Your task to perform on an android device: toggle improve location accuracy Image 0: 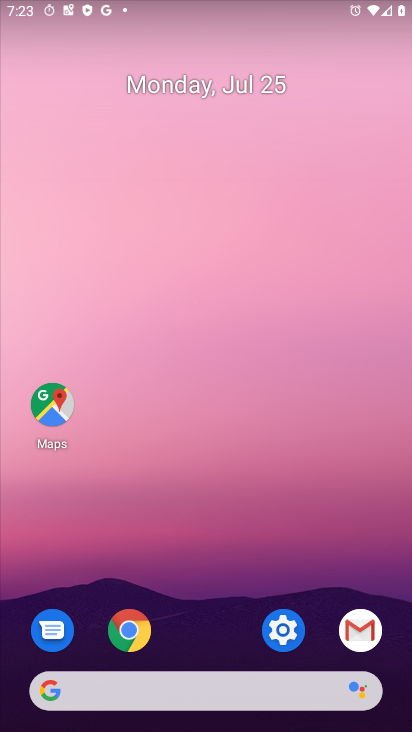
Step 0: click (291, 623)
Your task to perform on an android device: toggle improve location accuracy Image 1: 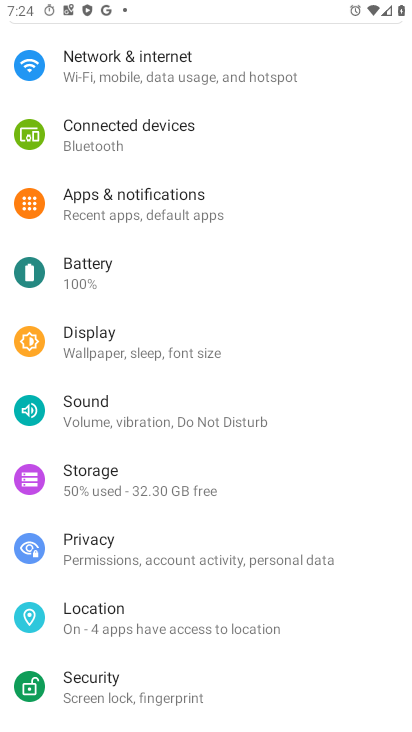
Step 1: click (105, 608)
Your task to perform on an android device: toggle improve location accuracy Image 2: 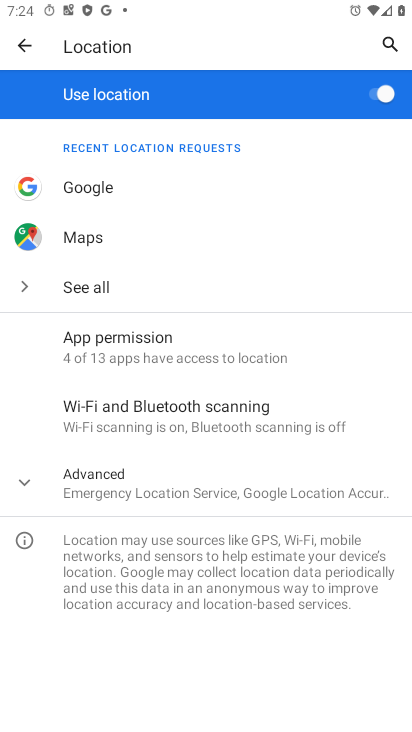
Step 2: click (48, 488)
Your task to perform on an android device: toggle improve location accuracy Image 3: 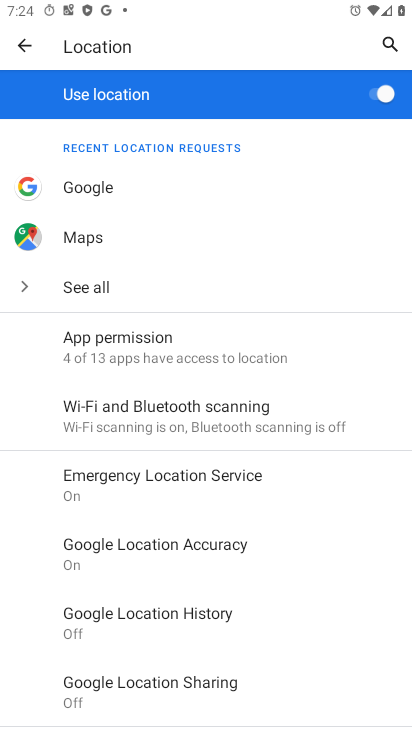
Step 3: click (157, 538)
Your task to perform on an android device: toggle improve location accuracy Image 4: 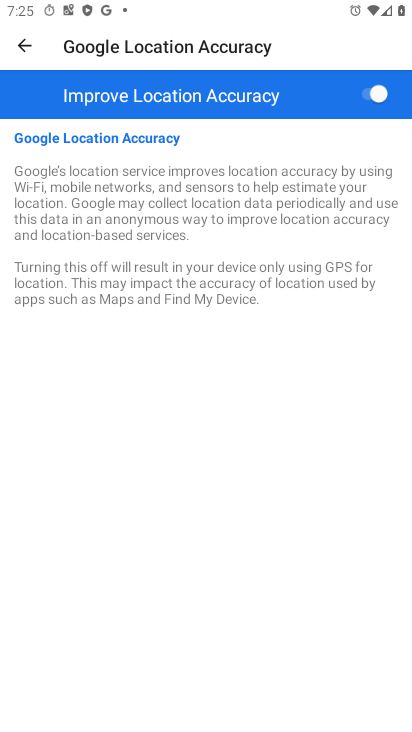
Step 4: task complete